Your task to perform on an android device: turn notification dots off Image 0: 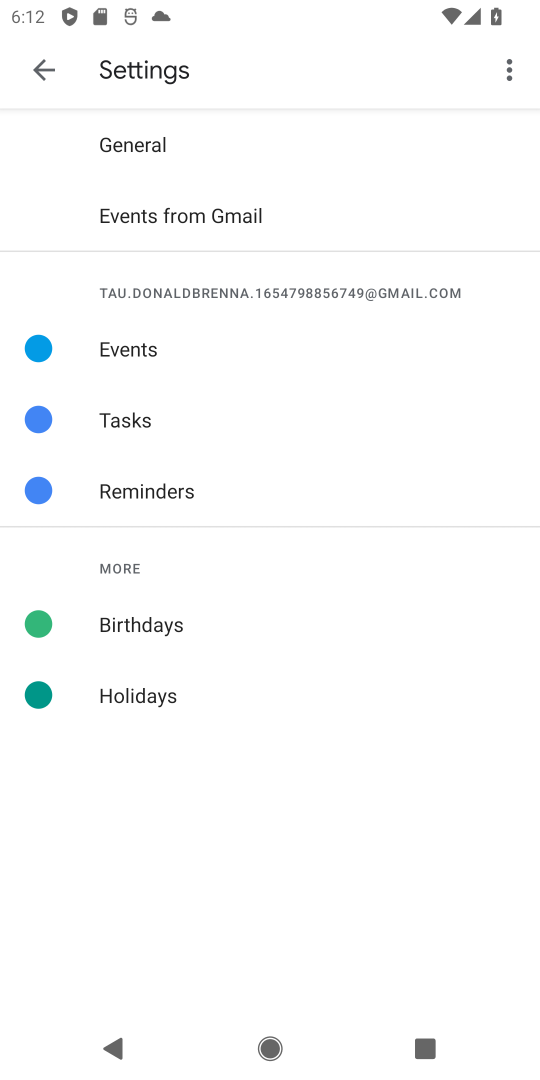
Step 0: press back button
Your task to perform on an android device: turn notification dots off Image 1: 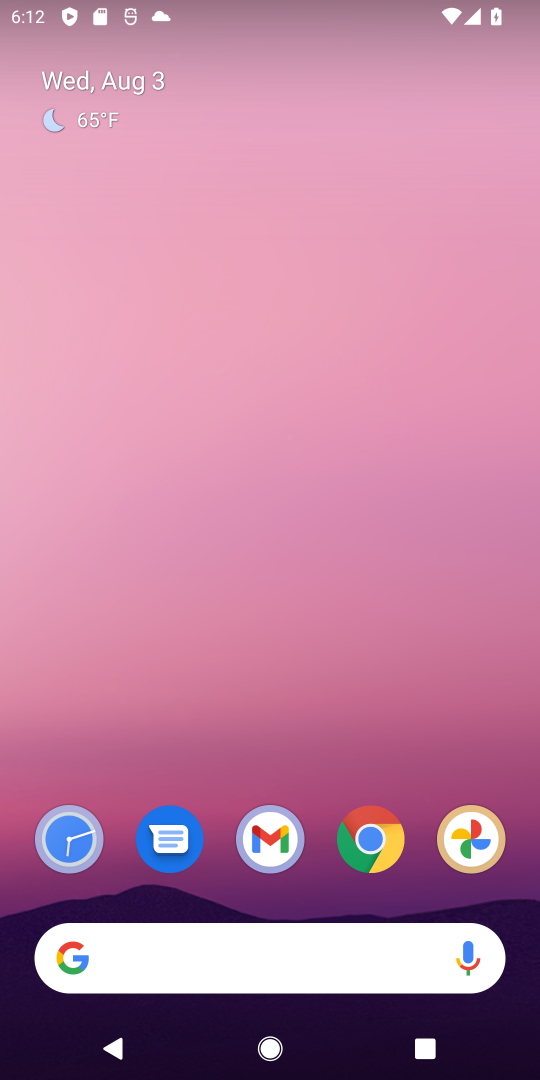
Step 1: drag from (204, 775) to (389, 23)
Your task to perform on an android device: turn notification dots off Image 2: 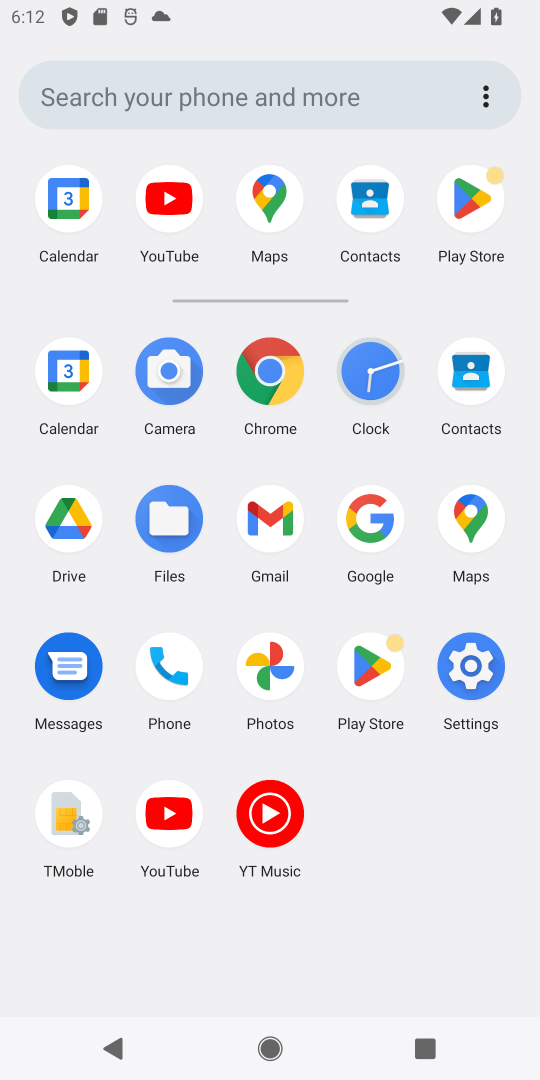
Step 2: click (464, 660)
Your task to perform on an android device: turn notification dots off Image 3: 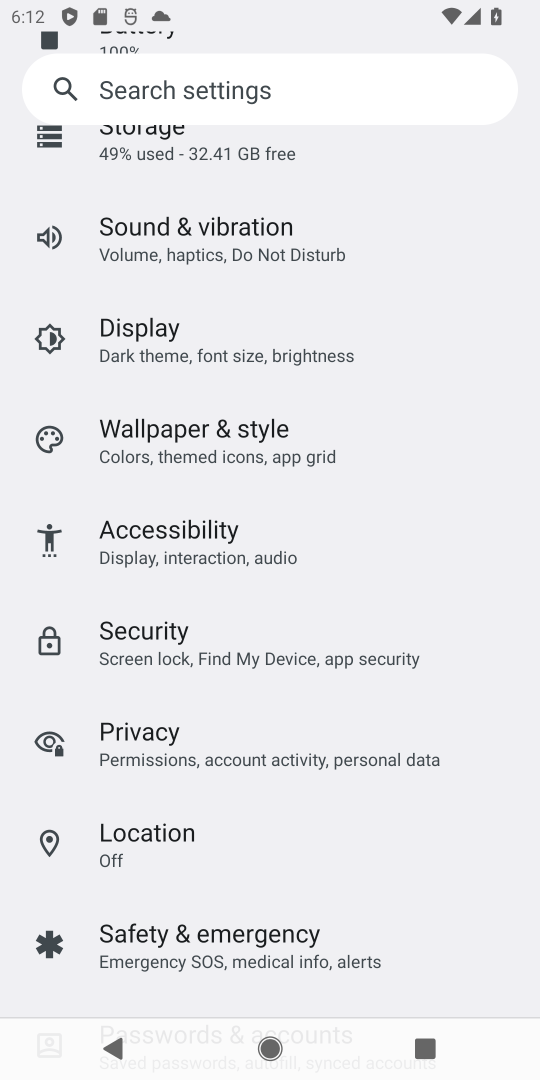
Step 3: drag from (283, 298) to (251, 783)
Your task to perform on an android device: turn notification dots off Image 4: 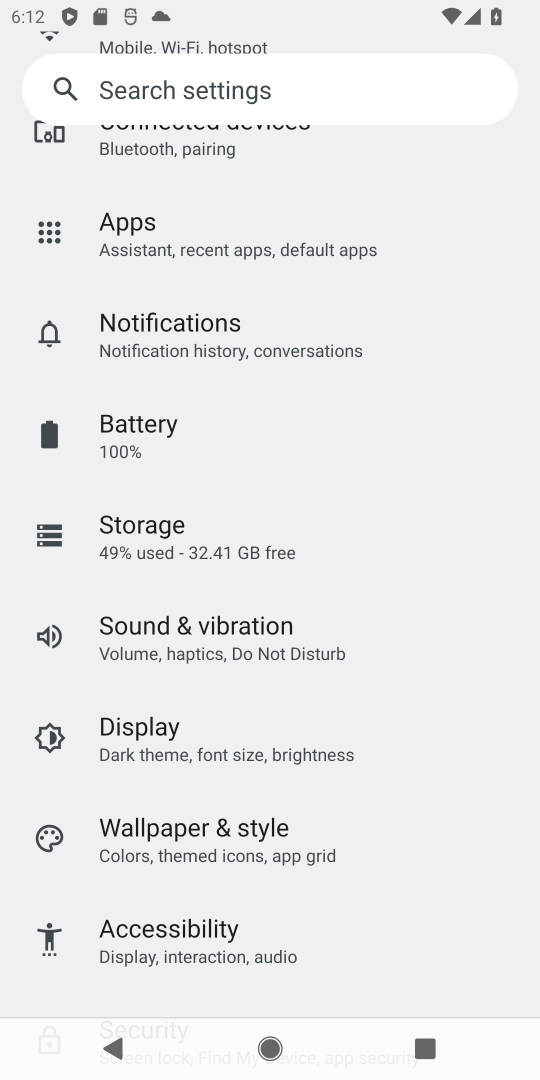
Step 4: click (181, 316)
Your task to perform on an android device: turn notification dots off Image 5: 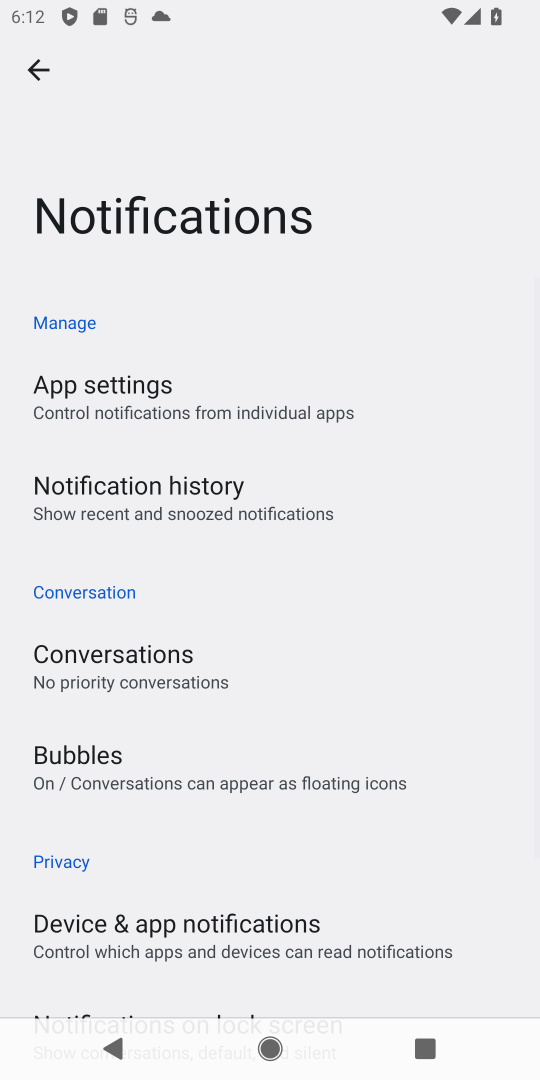
Step 5: drag from (252, 826) to (512, 74)
Your task to perform on an android device: turn notification dots off Image 6: 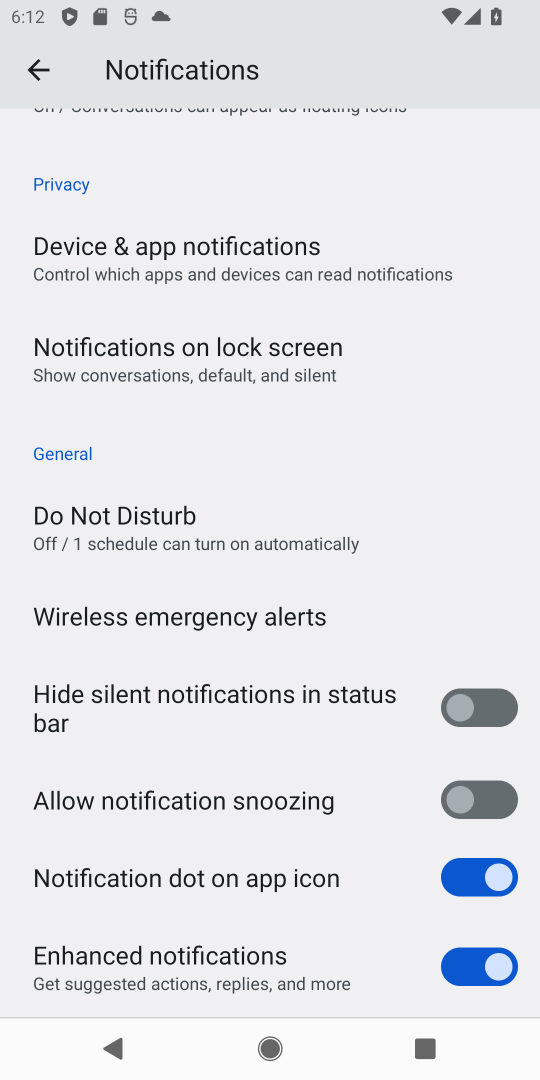
Step 6: click (489, 870)
Your task to perform on an android device: turn notification dots off Image 7: 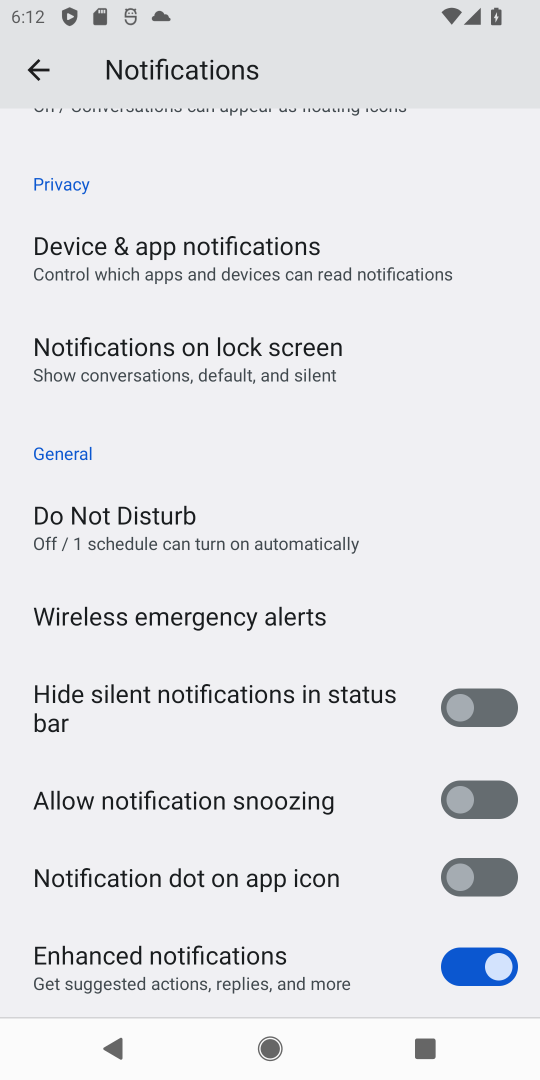
Step 7: task complete